Your task to perform on an android device: turn off picture-in-picture Image 0: 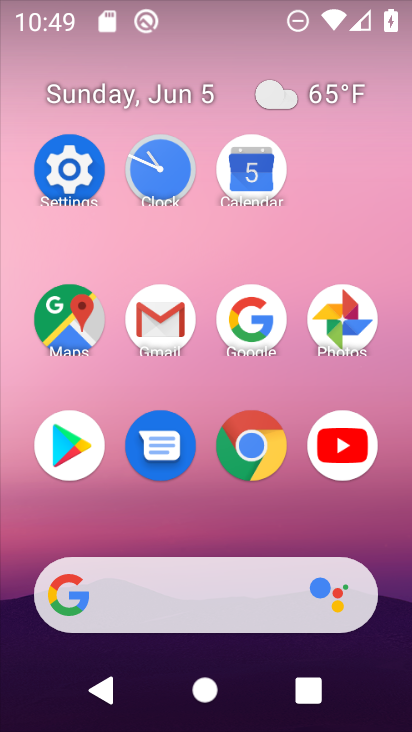
Step 0: click (256, 461)
Your task to perform on an android device: turn off picture-in-picture Image 1: 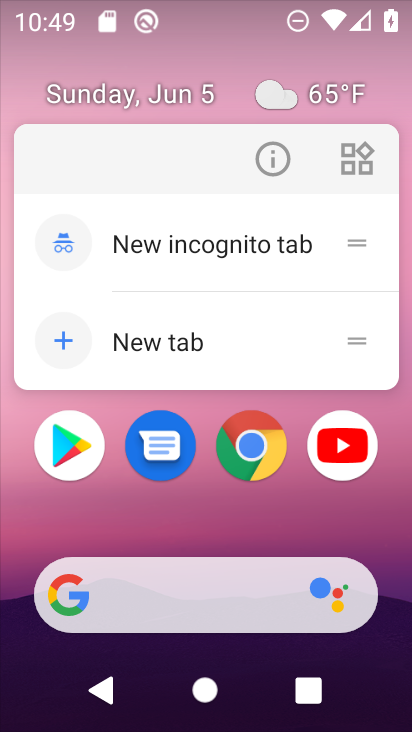
Step 1: click (273, 161)
Your task to perform on an android device: turn off picture-in-picture Image 2: 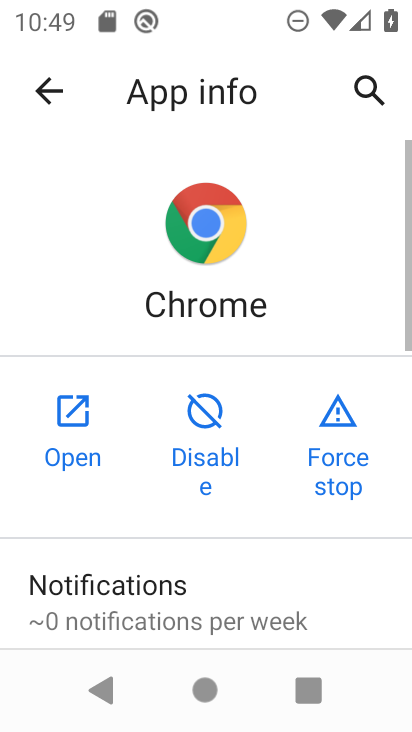
Step 2: drag from (244, 575) to (292, 71)
Your task to perform on an android device: turn off picture-in-picture Image 3: 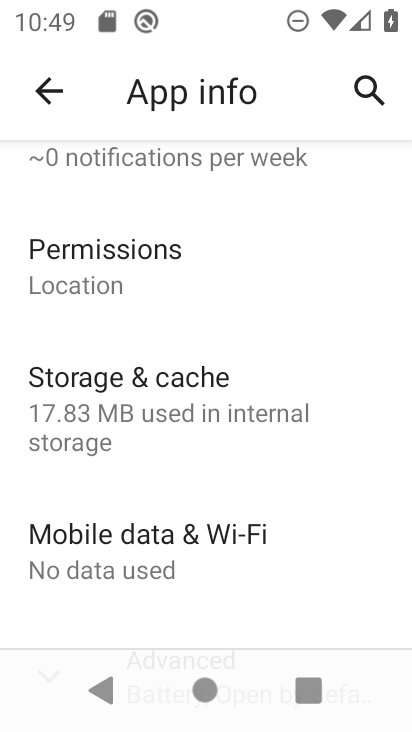
Step 3: drag from (282, 528) to (278, 189)
Your task to perform on an android device: turn off picture-in-picture Image 4: 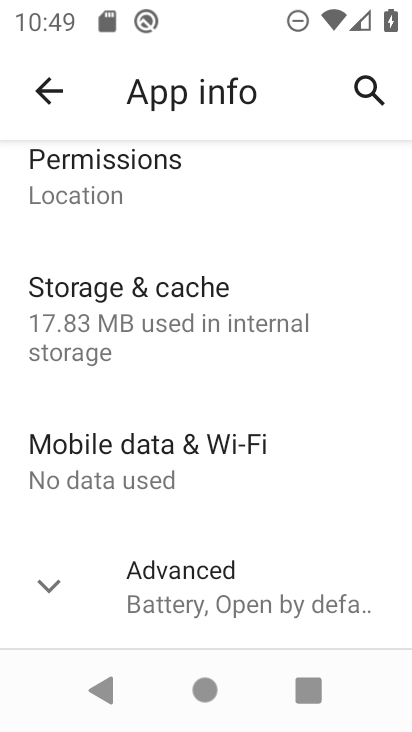
Step 4: click (218, 596)
Your task to perform on an android device: turn off picture-in-picture Image 5: 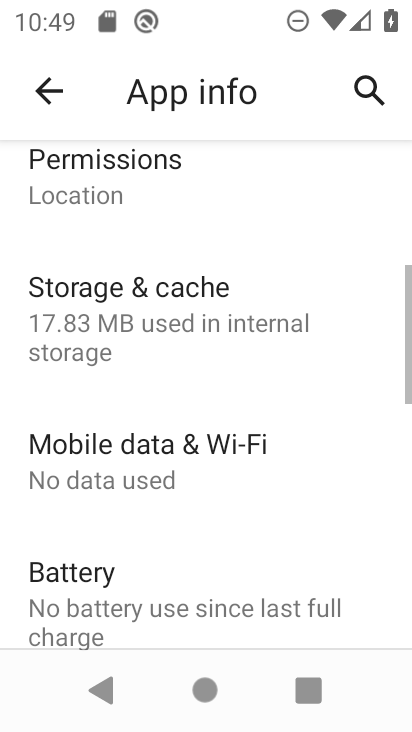
Step 5: drag from (220, 590) to (274, 242)
Your task to perform on an android device: turn off picture-in-picture Image 6: 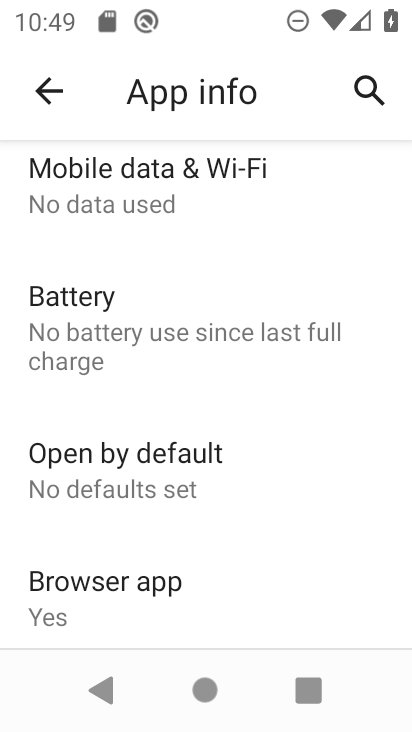
Step 6: drag from (255, 539) to (271, 340)
Your task to perform on an android device: turn off picture-in-picture Image 7: 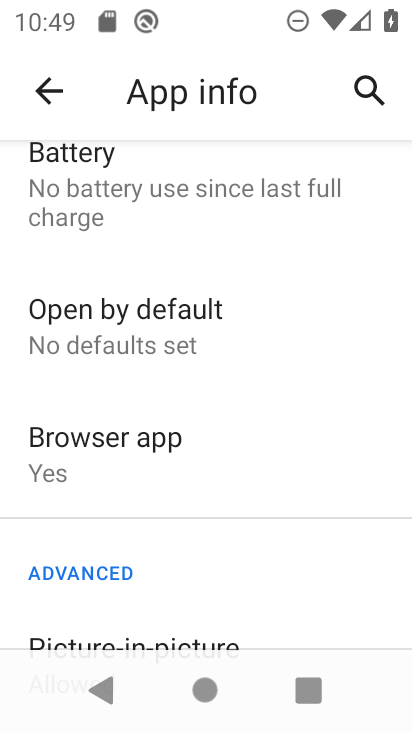
Step 7: drag from (281, 523) to (305, 233)
Your task to perform on an android device: turn off picture-in-picture Image 8: 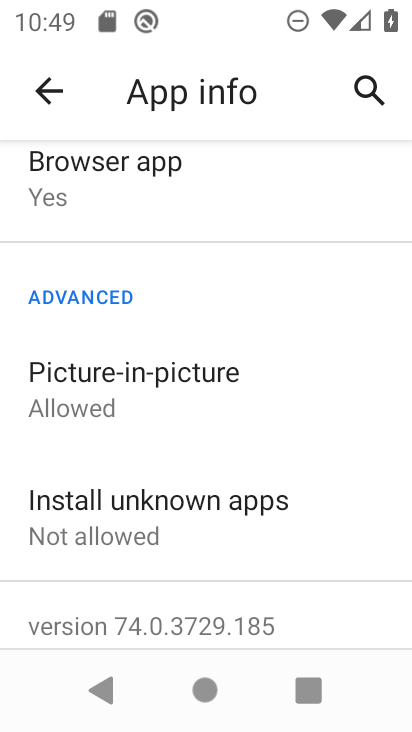
Step 8: click (244, 362)
Your task to perform on an android device: turn off picture-in-picture Image 9: 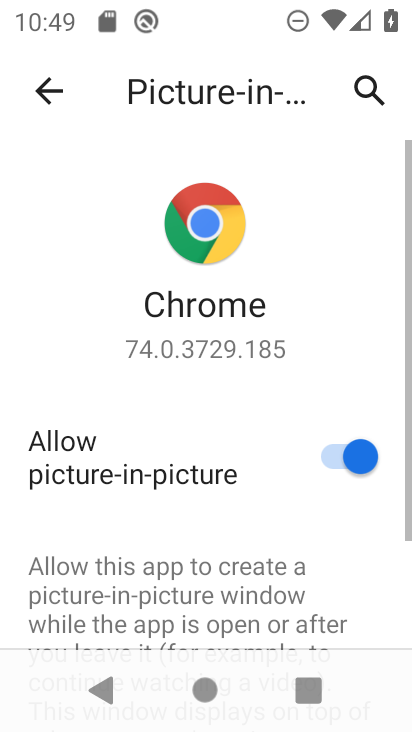
Step 9: click (370, 480)
Your task to perform on an android device: turn off picture-in-picture Image 10: 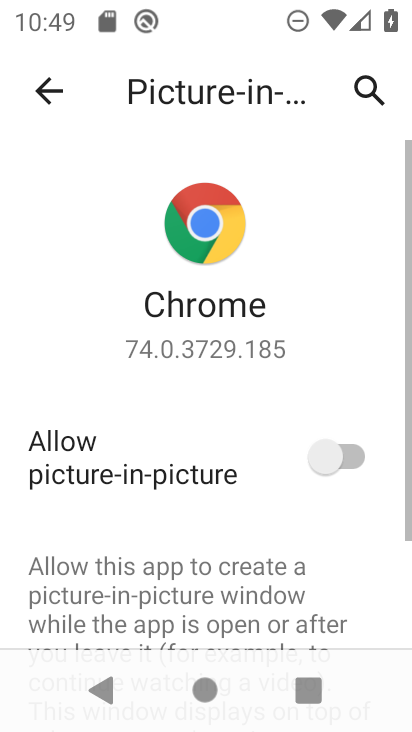
Step 10: task complete